Your task to perform on an android device: find snoozed emails in the gmail app Image 0: 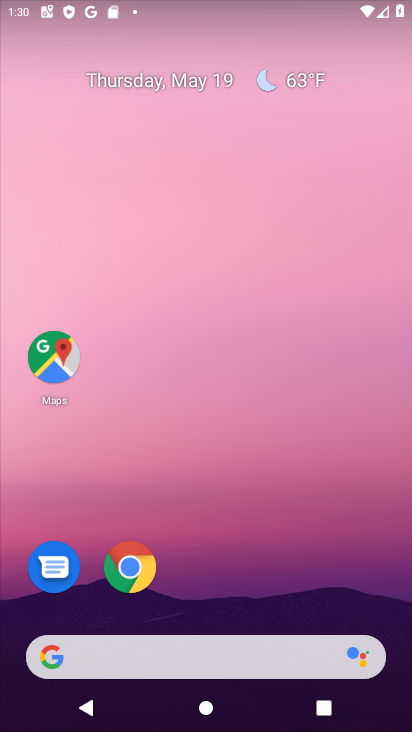
Step 0: drag from (351, 454) to (215, 26)
Your task to perform on an android device: find snoozed emails in the gmail app Image 1: 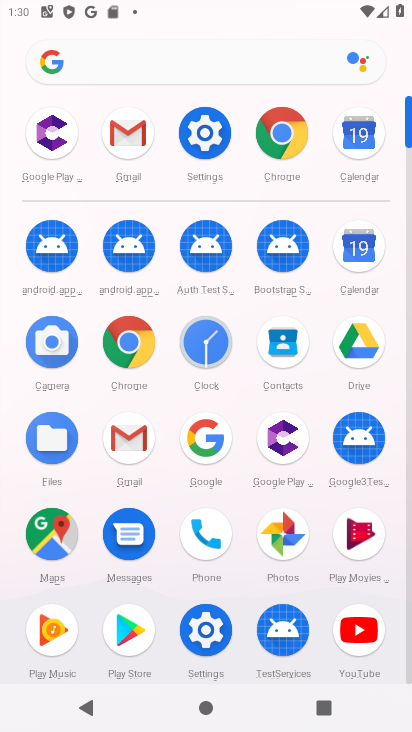
Step 1: click (122, 136)
Your task to perform on an android device: find snoozed emails in the gmail app Image 2: 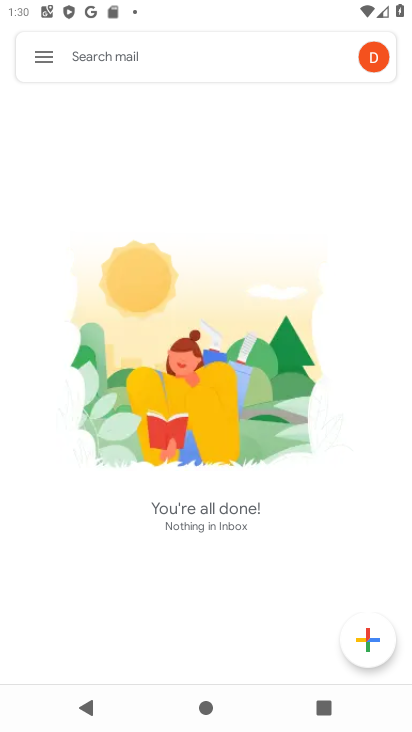
Step 2: click (34, 56)
Your task to perform on an android device: find snoozed emails in the gmail app Image 3: 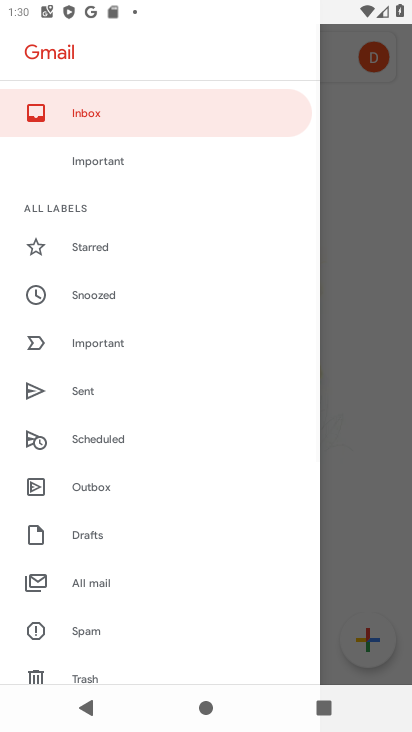
Step 3: click (116, 296)
Your task to perform on an android device: find snoozed emails in the gmail app Image 4: 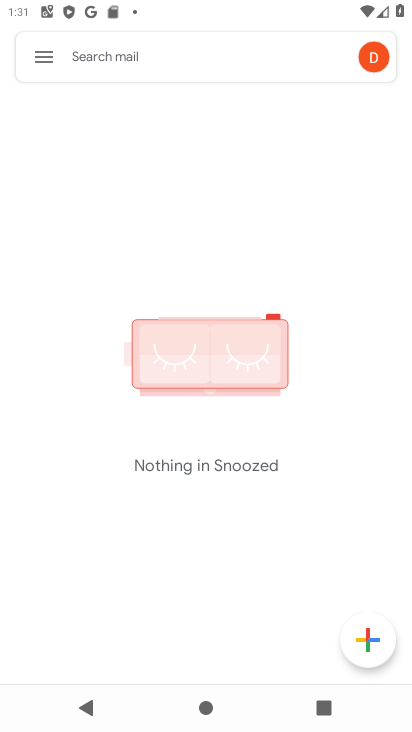
Step 4: task complete